Your task to perform on an android device: create a new album in the google photos Image 0: 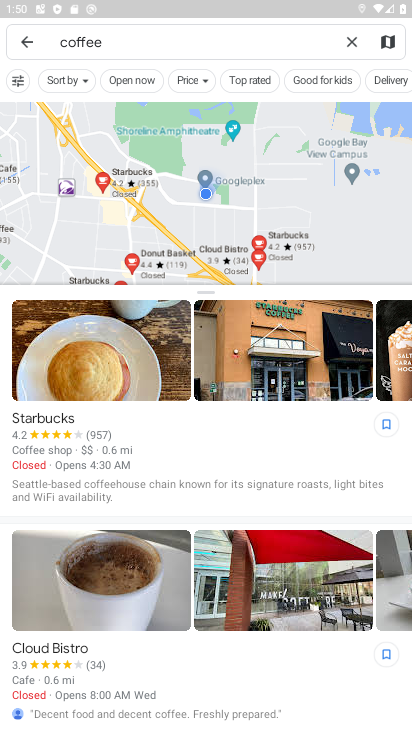
Step 0: press home button
Your task to perform on an android device: create a new album in the google photos Image 1: 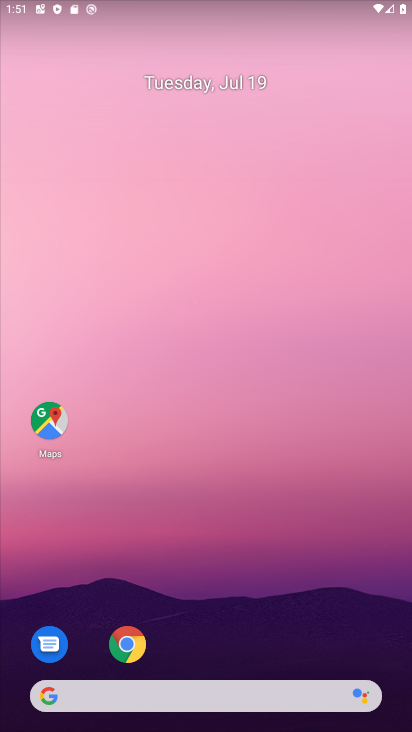
Step 1: drag from (189, 566) to (207, 46)
Your task to perform on an android device: create a new album in the google photos Image 2: 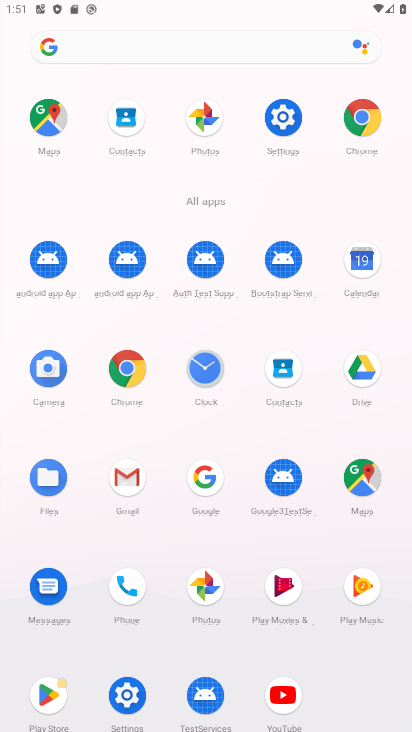
Step 2: click (198, 608)
Your task to perform on an android device: create a new album in the google photos Image 3: 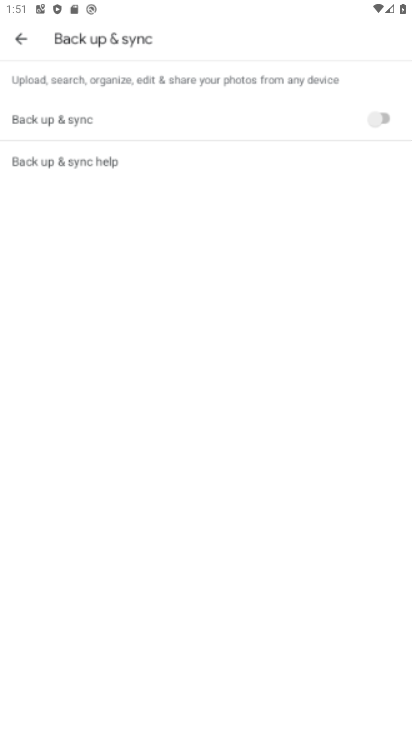
Step 3: click (201, 592)
Your task to perform on an android device: create a new album in the google photos Image 4: 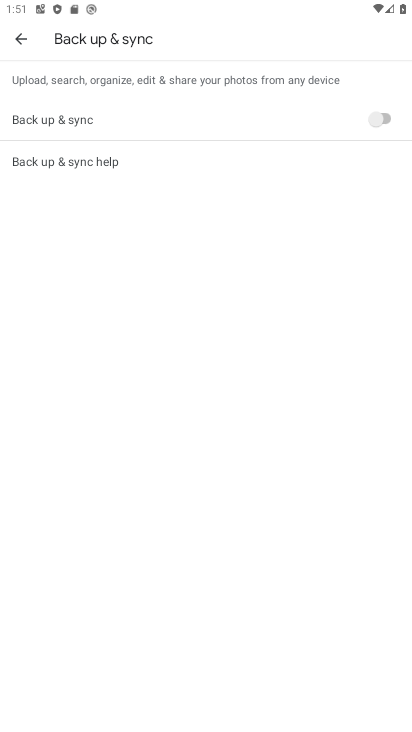
Step 4: click (10, 50)
Your task to perform on an android device: create a new album in the google photos Image 5: 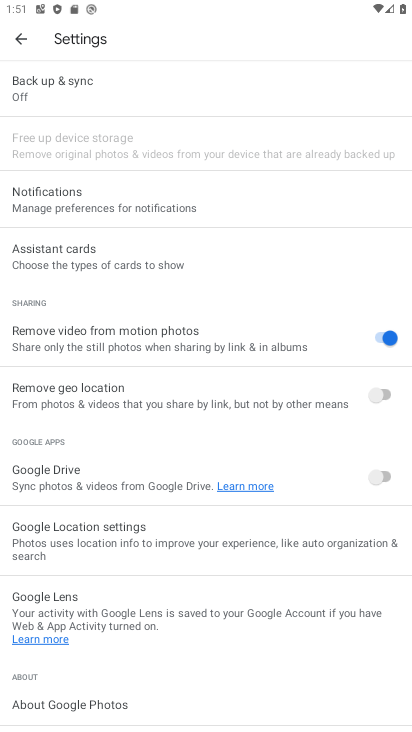
Step 5: click (22, 29)
Your task to perform on an android device: create a new album in the google photos Image 6: 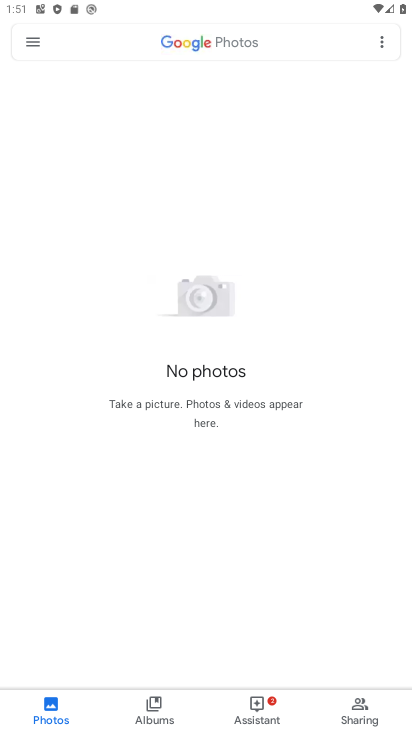
Step 6: click (151, 716)
Your task to perform on an android device: create a new album in the google photos Image 7: 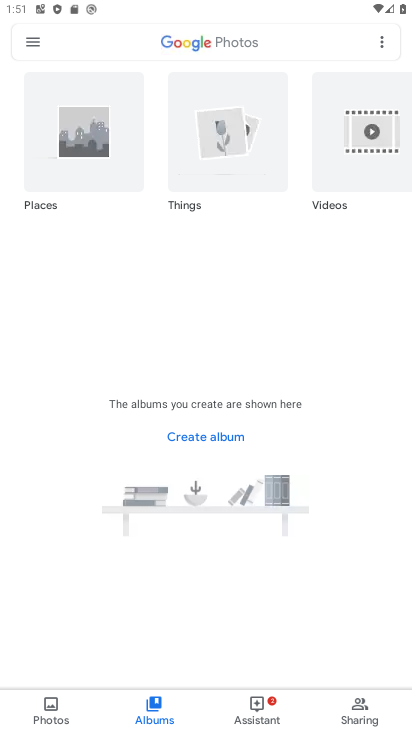
Step 7: click (206, 439)
Your task to perform on an android device: create a new album in the google photos Image 8: 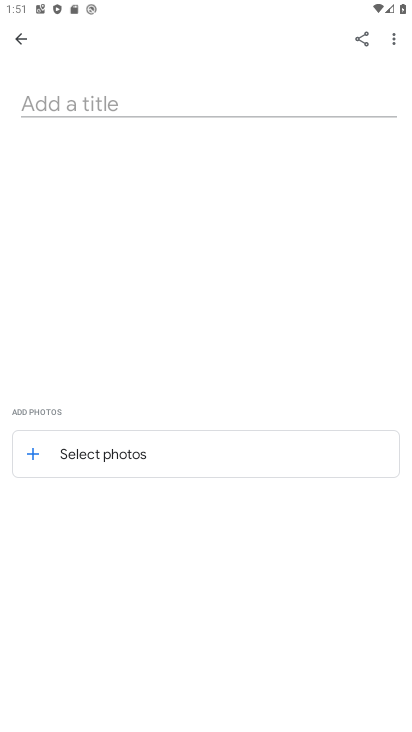
Step 8: click (96, 87)
Your task to perform on an android device: create a new album in the google photos Image 9: 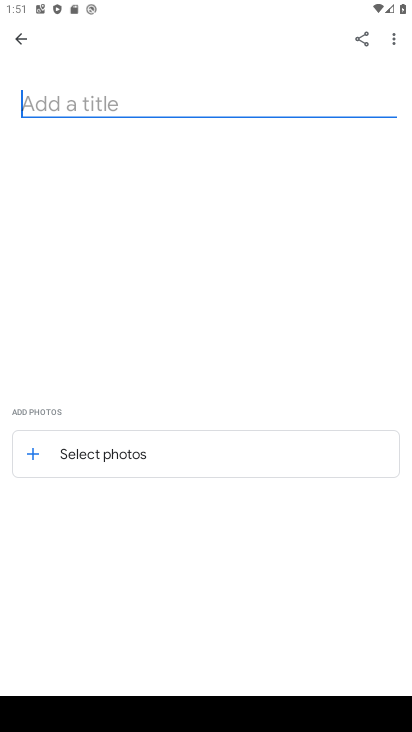
Step 9: type "Anuradha"
Your task to perform on an android device: create a new album in the google photos Image 10: 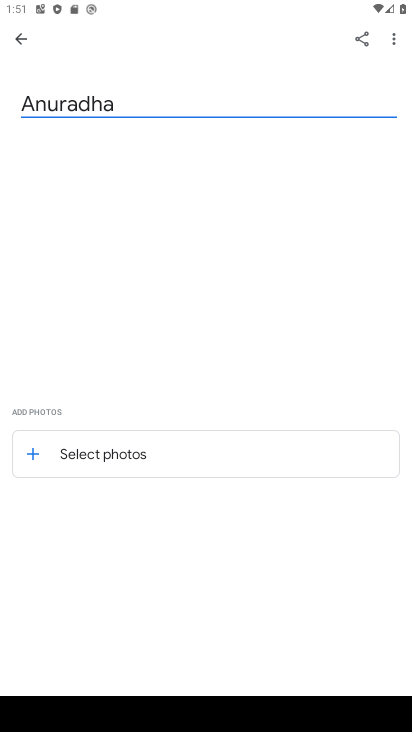
Step 10: click (92, 466)
Your task to perform on an android device: create a new album in the google photos Image 11: 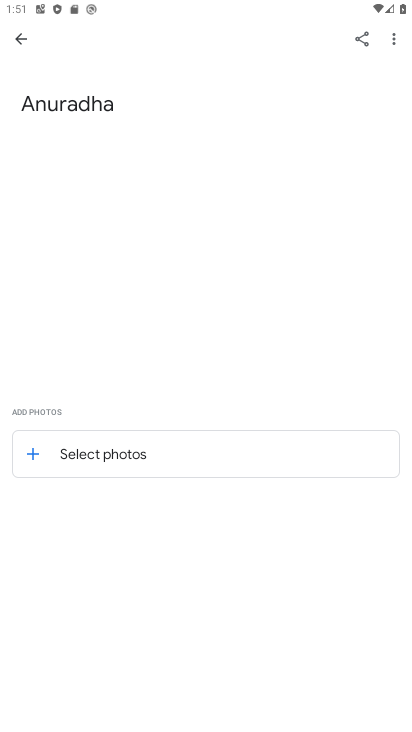
Step 11: click (92, 438)
Your task to perform on an android device: create a new album in the google photos Image 12: 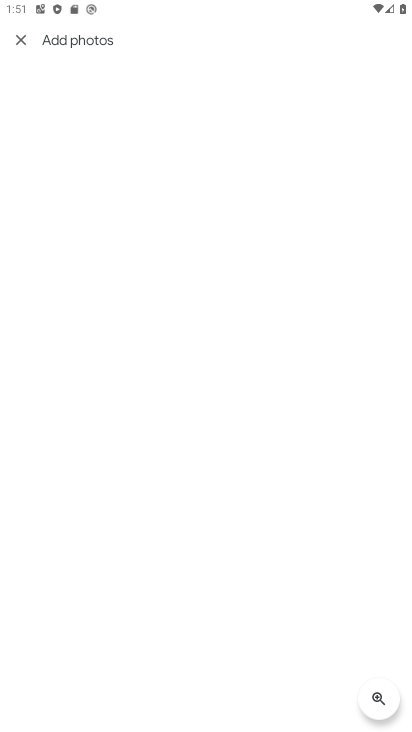
Step 12: task complete